Your task to perform on an android device: Go to internet settings Image 0: 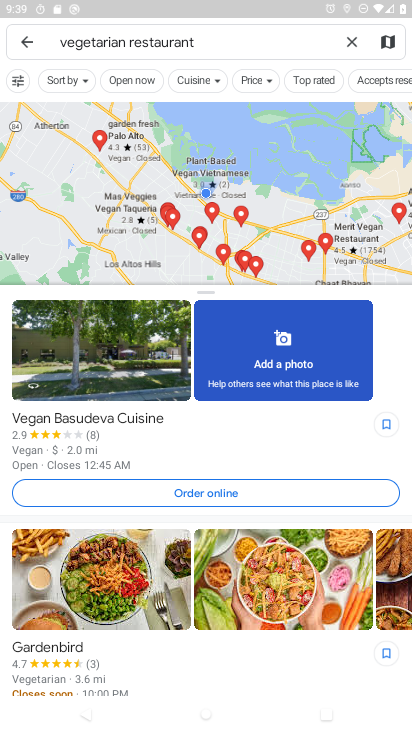
Step 0: drag from (224, 386) to (249, 686)
Your task to perform on an android device: Go to internet settings Image 1: 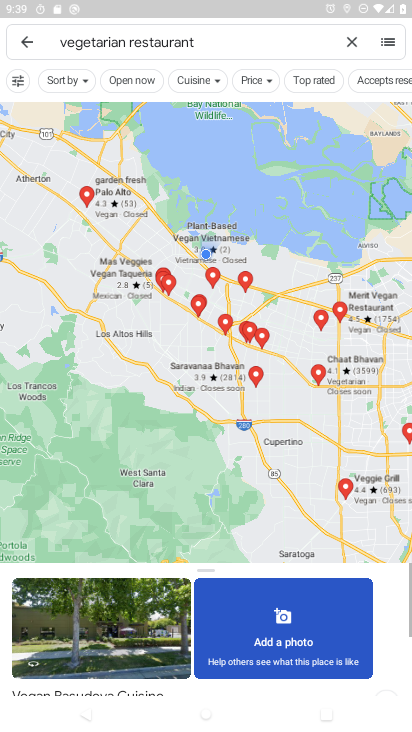
Step 1: drag from (227, 179) to (231, 572)
Your task to perform on an android device: Go to internet settings Image 2: 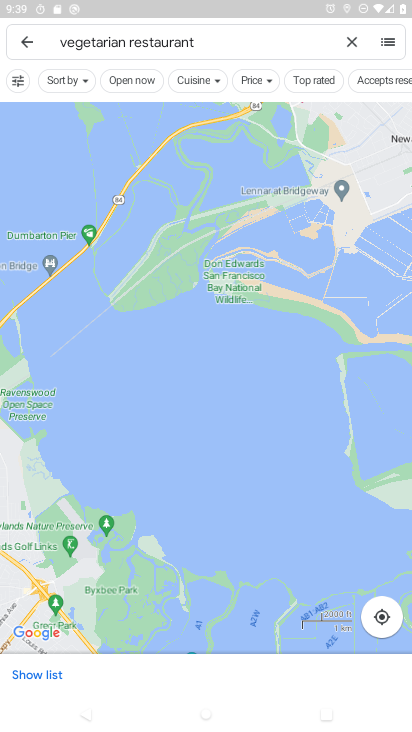
Step 2: drag from (113, 14) to (130, 500)
Your task to perform on an android device: Go to internet settings Image 3: 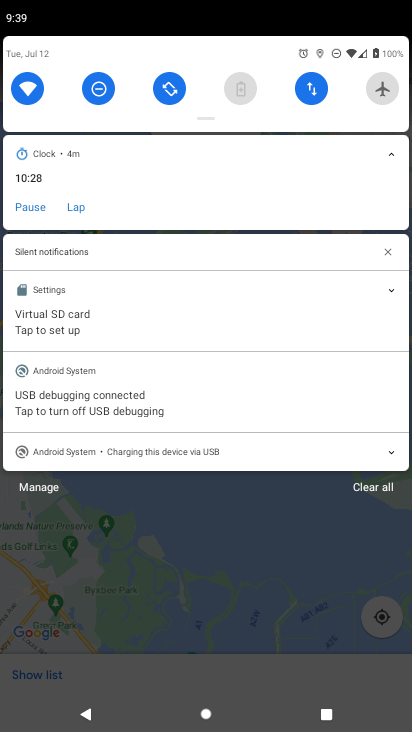
Step 3: click (307, 76)
Your task to perform on an android device: Go to internet settings Image 4: 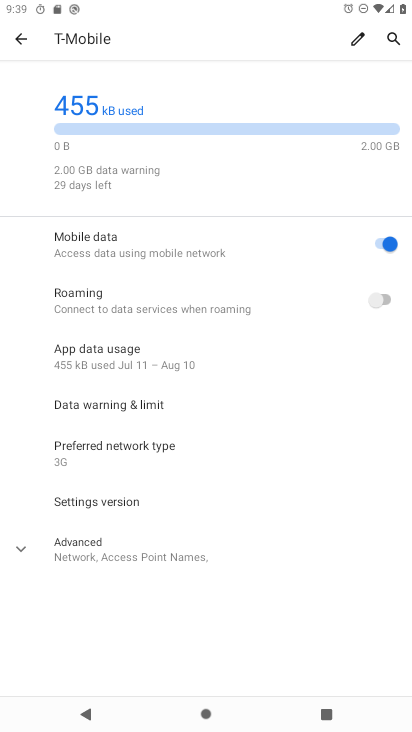
Step 4: task complete